Your task to perform on an android device: open wifi settings Image 0: 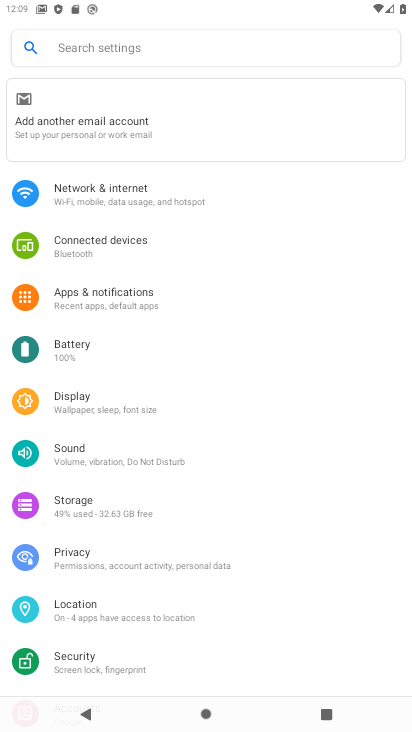
Step 0: press home button
Your task to perform on an android device: open wifi settings Image 1: 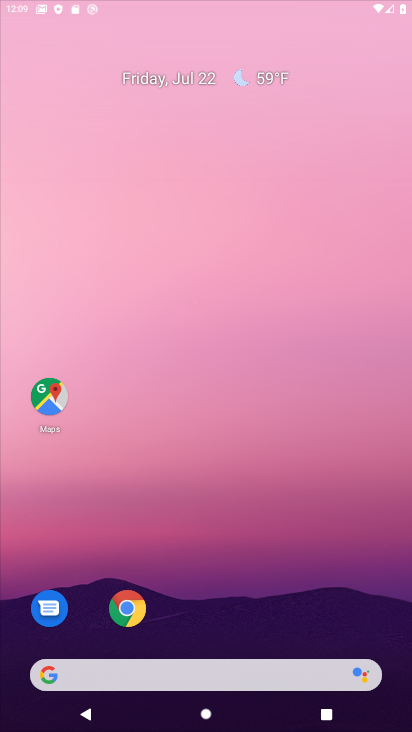
Step 1: drag from (305, 583) to (217, 0)
Your task to perform on an android device: open wifi settings Image 2: 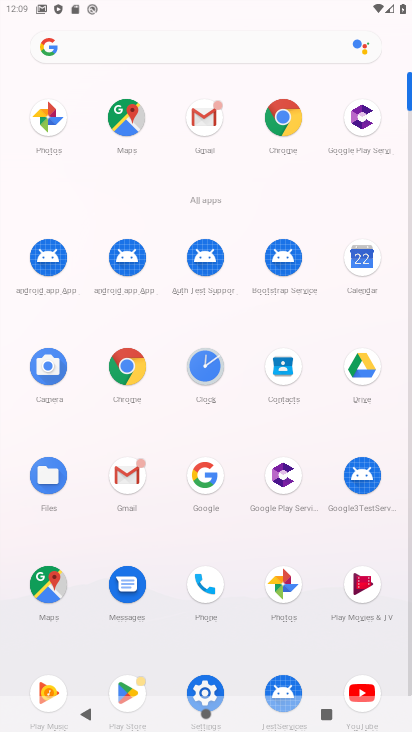
Step 2: click (202, 691)
Your task to perform on an android device: open wifi settings Image 3: 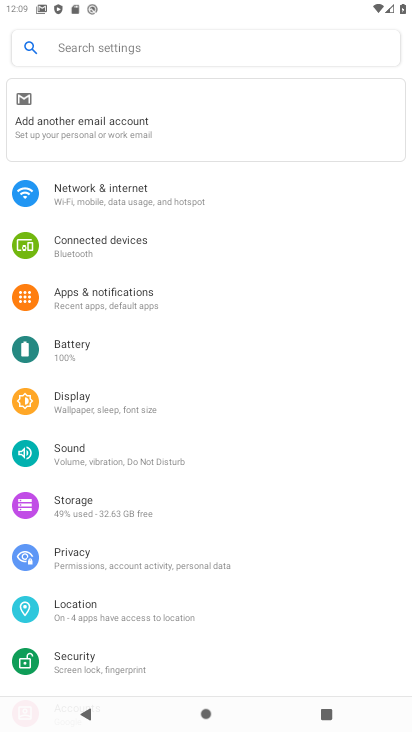
Step 3: click (131, 195)
Your task to perform on an android device: open wifi settings Image 4: 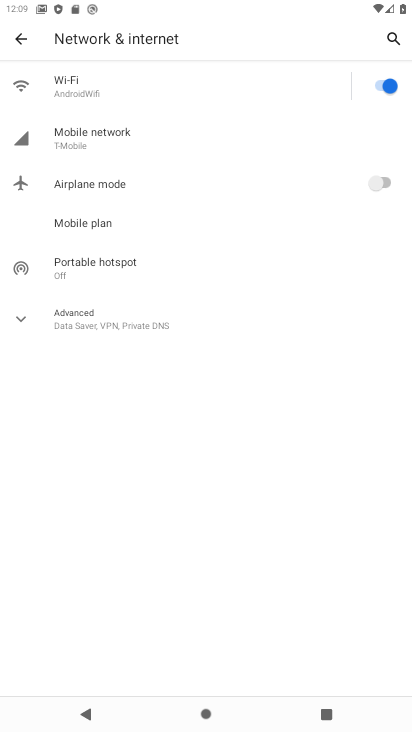
Step 4: click (51, 89)
Your task to perform on an android device: open wifi settings Image 5: 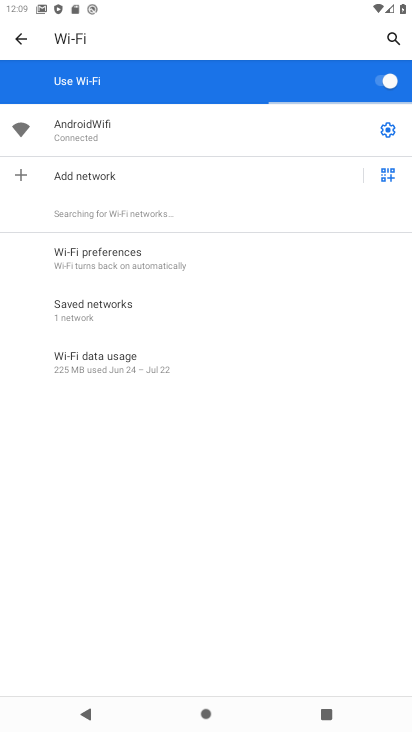
Step 5: task complete